Your task to perform on an android device: turn on javascript in the chrome app Image 0: 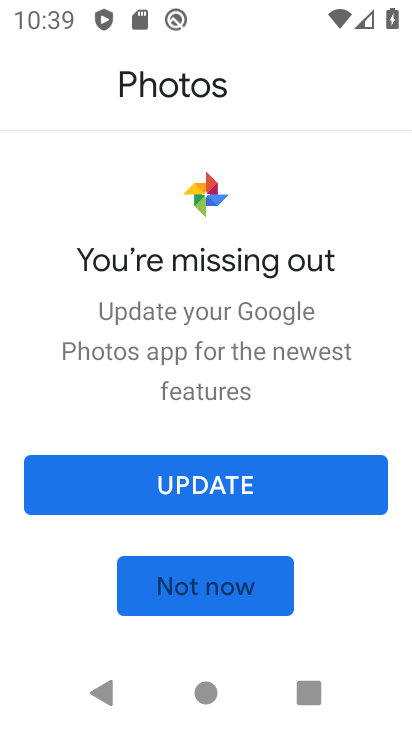
Step 0: press home button
Your task to perform on an android device: turn on javascript in the chrome app Image 1: 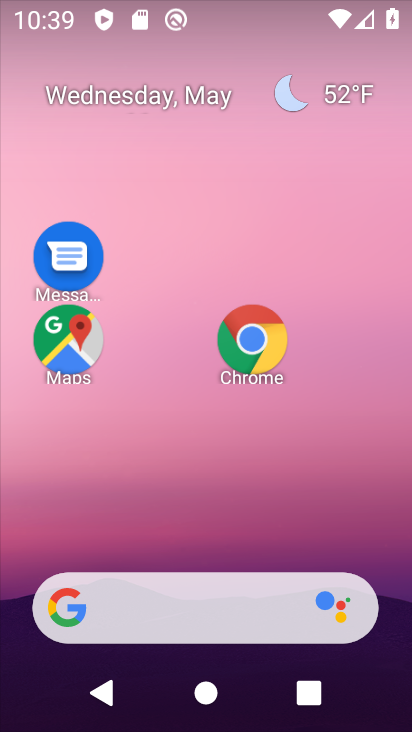
Step 1: click (249, 337)
Your task to perform on an android device: turn on javascript in the chrome app Image 2: 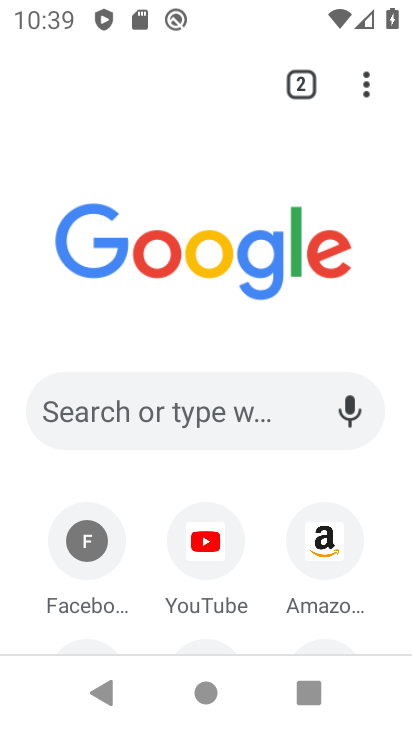
Step 2: click (354, 95)
Your task to perform on an android device: turn on javascript in the chrome app Image 3: 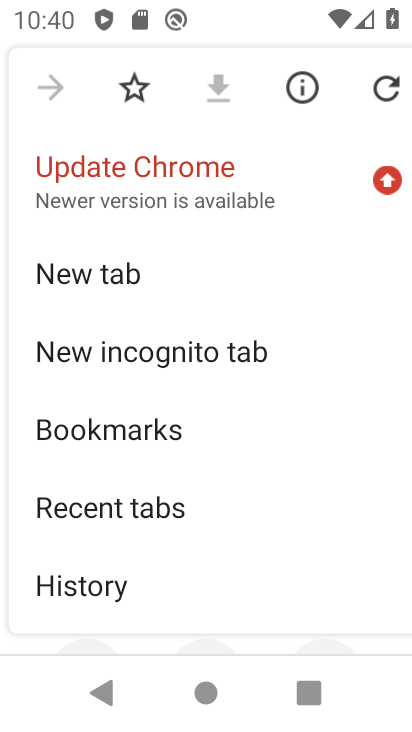
Step 3: drag from (299, 537) to (259, 83)
Your task to perform on an android device: turn on javascript in the chrome app Image 4: 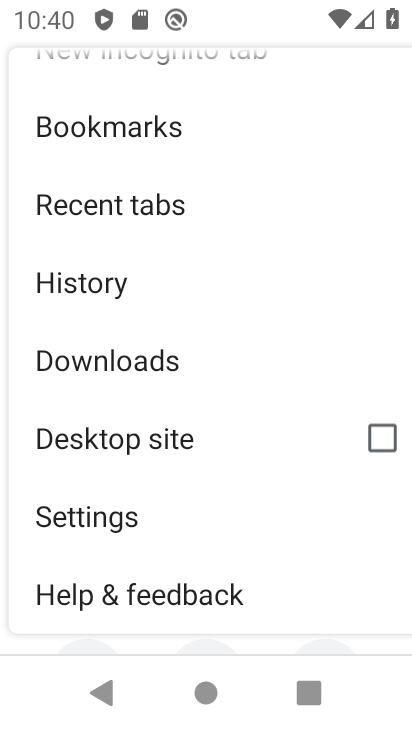
Step 4: click (112, 517)
Your task to perform on an android device: turn on javascript in the chrome app Image 5: 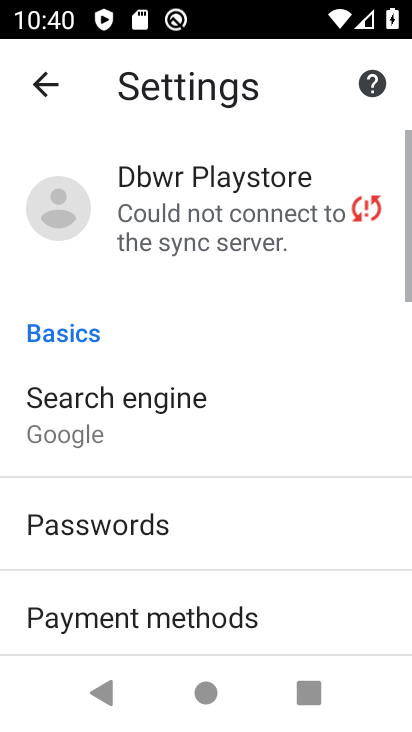
Step 5: drag from (260, 535) to (283, 97)
Your task to perform on an android device: turn on javascript in the chrome app Image 6: 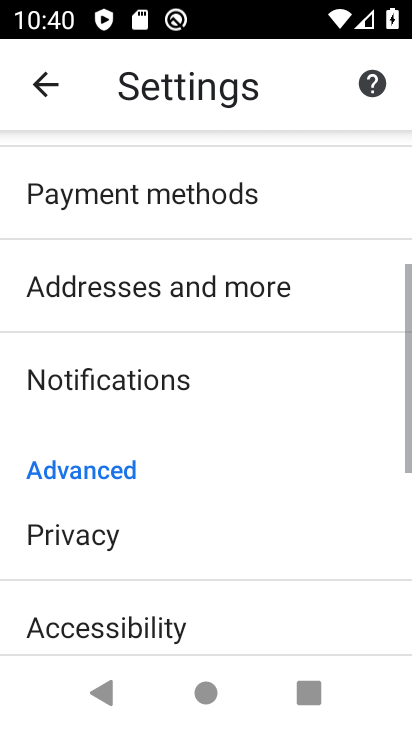
Step 6: drag from (219, 594) to (194, 201)
Your task to perform on an android device: turn on javascript in the chrome app Image 7: 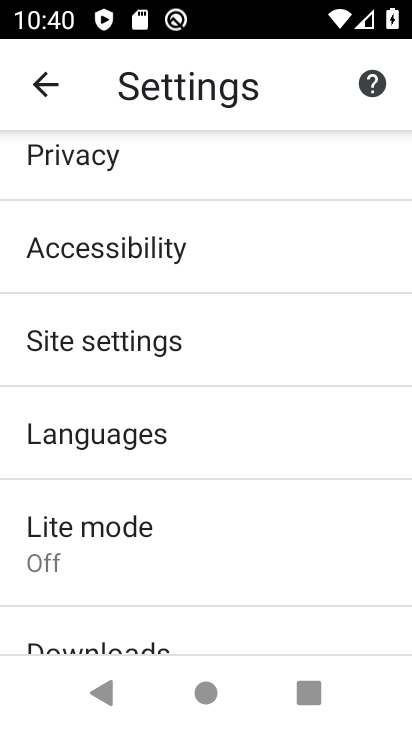
Step 7: click (98, 340)
Your task to perform on an android device: turn on javascript in the chrome app Image 8: 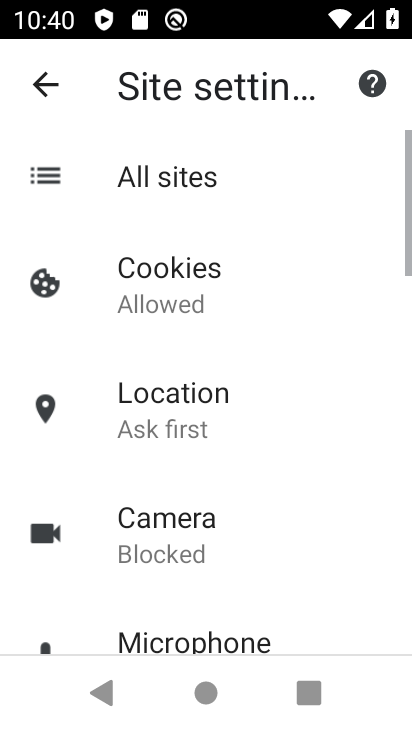
Step 8: drag from (240, 554) to (221, 178)
Your task to perform on an android device: turn on javascript in the chrome app Image 9: 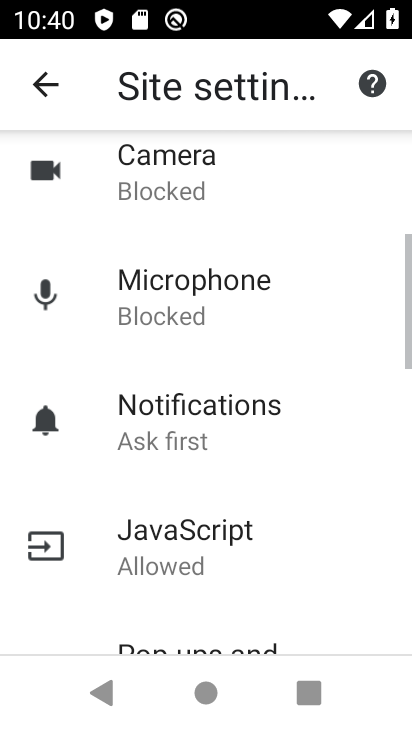
Step 9: click (152, 542)
Your task to perform on an android device: turn on javascript in the chrome app Image 10: 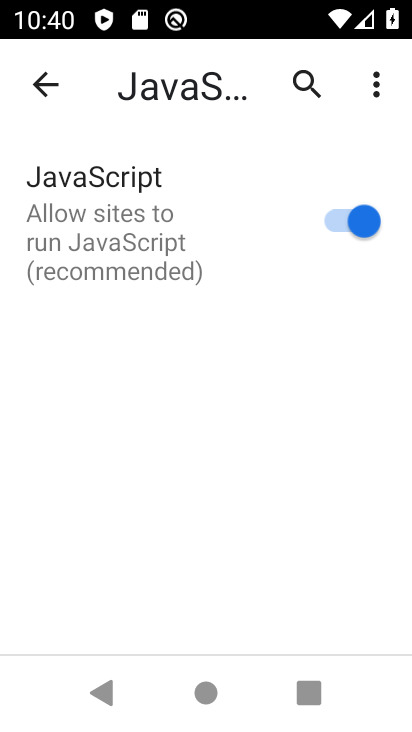
Step 10: task complete